Your task to perform on an android device: install app "Pinterest" Image 0: 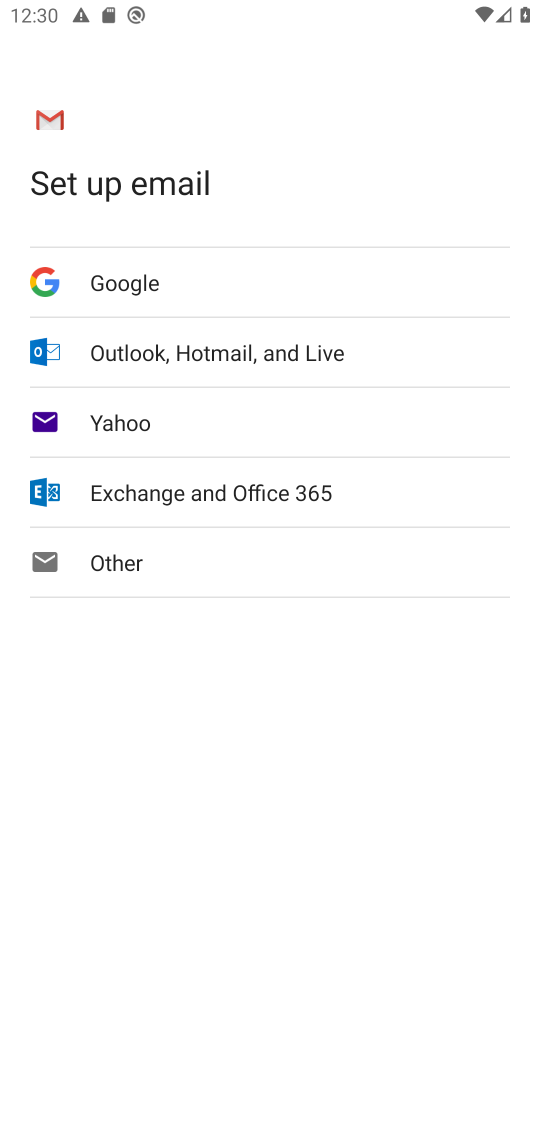
Step 0: press home button
Your task to perform on an android device: install app "Pinterest" Image 1: 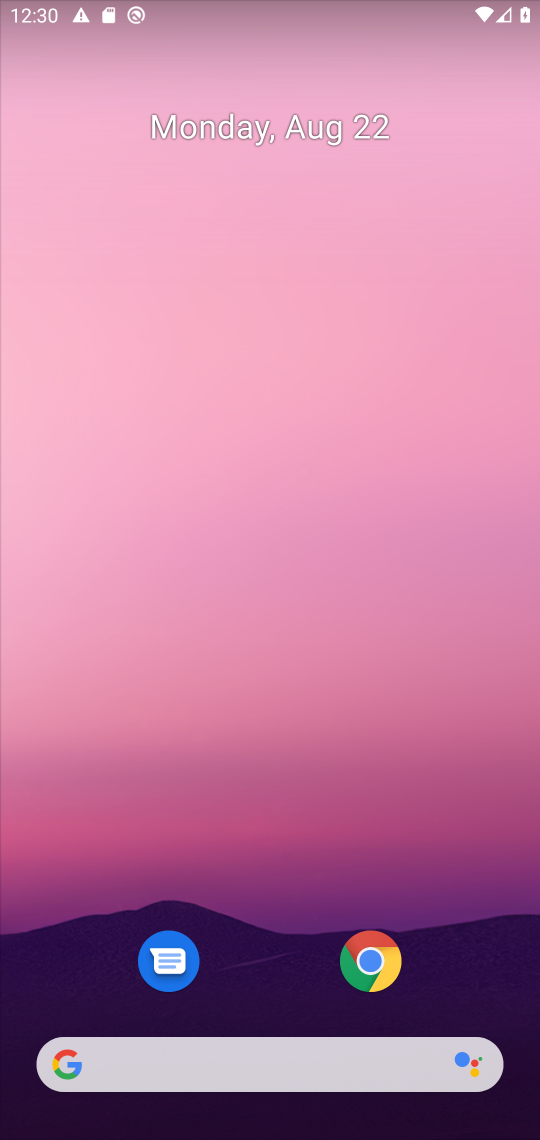
Step 1: drag from (464, 984) to (454, 108)
Your task to perform on an android device: install app "Pinterest" Image 2: 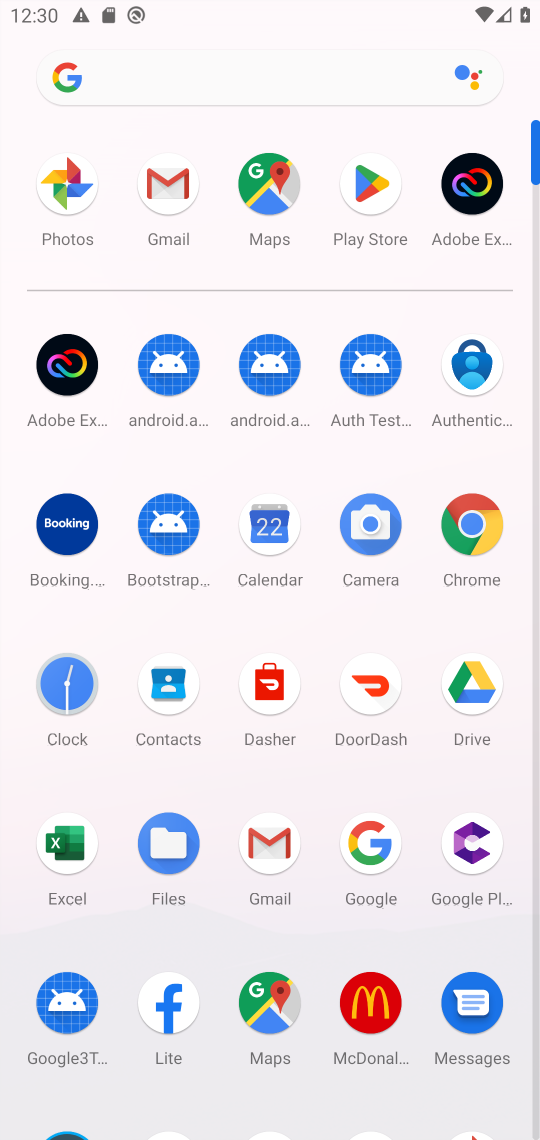
Step 2: click (374, 193)
Your task to perform on an android device: install app "Pinterest" Image 3: 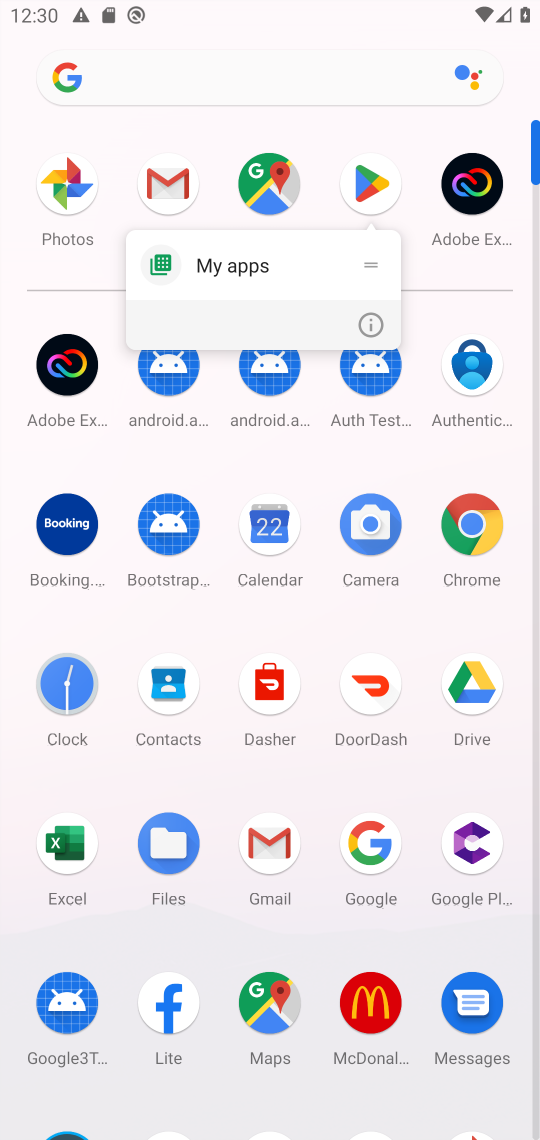
Step 3: click (374, 193)
Your task to perform on an android device: install app "Pinterest" Image 4: 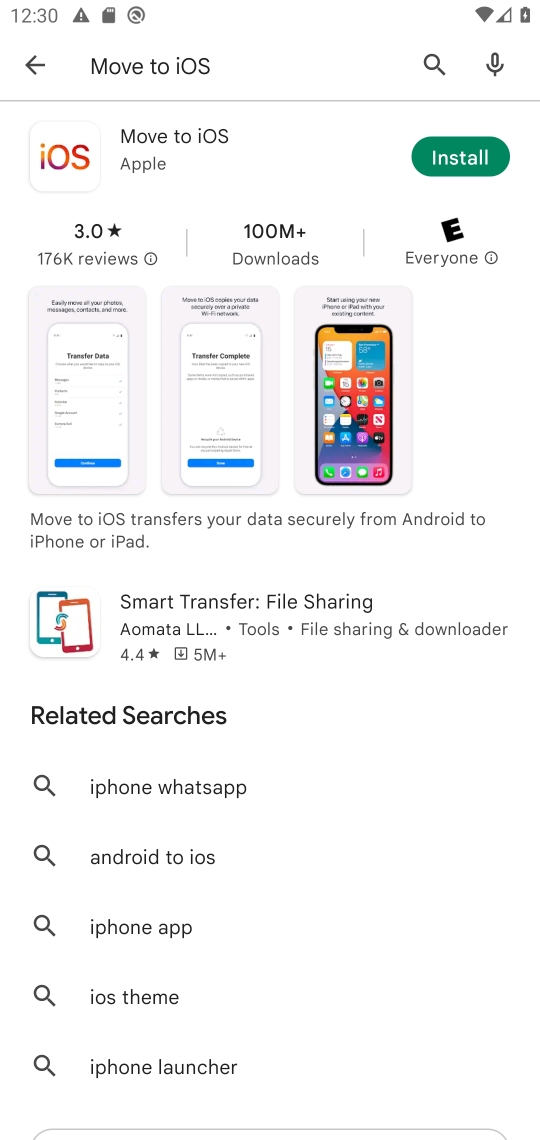
Step 4: press back button
Your task to perform on an android device: install app "Pinterest" Image 5: 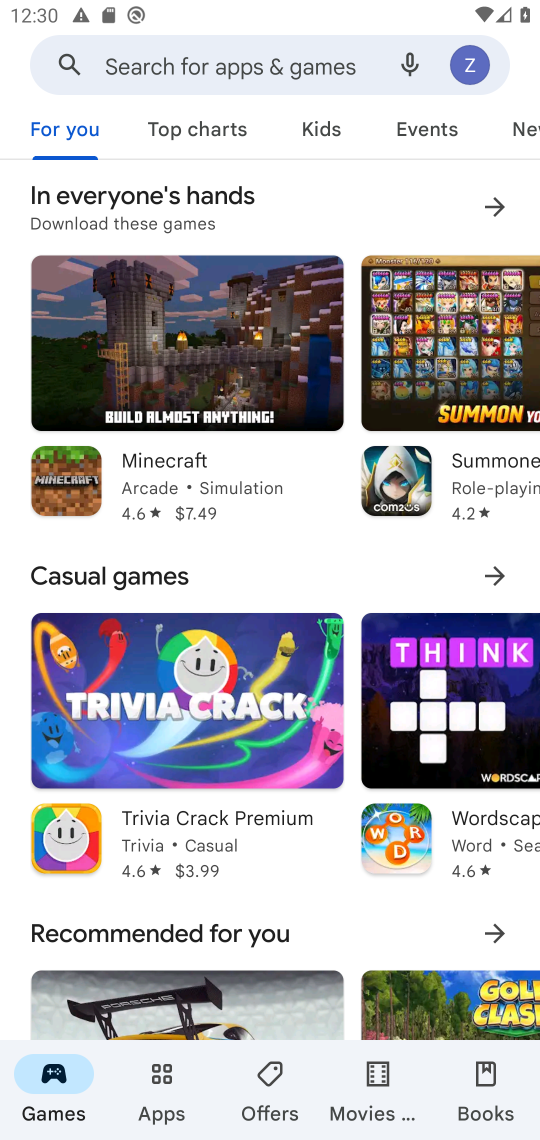
Step 5: click (298, 65)
Your task to perform on an android device: install app "Pinterest" Image 6: 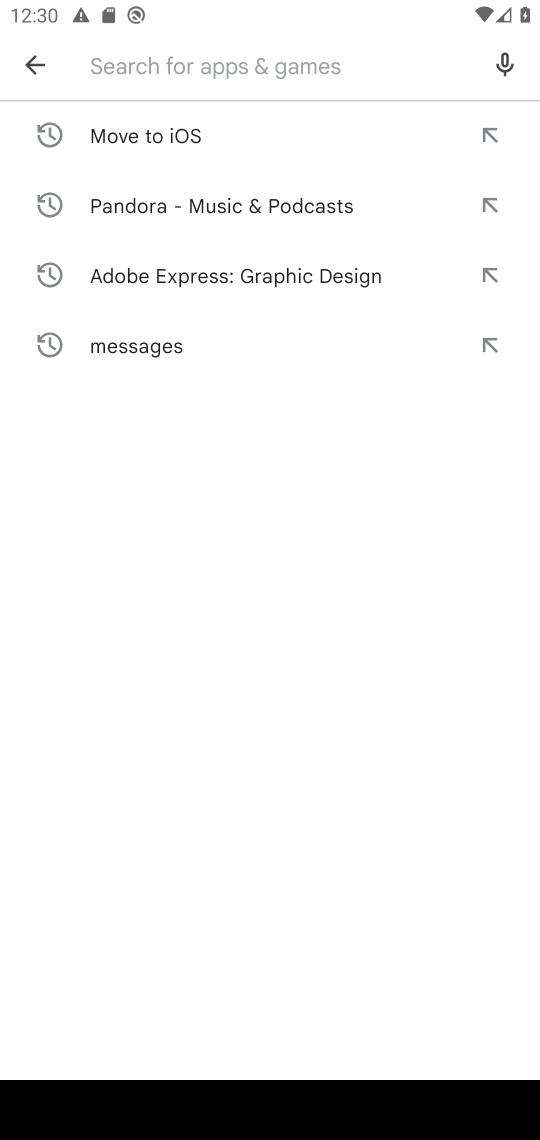
Step 6: type "pinterest"
Your task to perform on an android device: install app "Pinterest" Image 7: 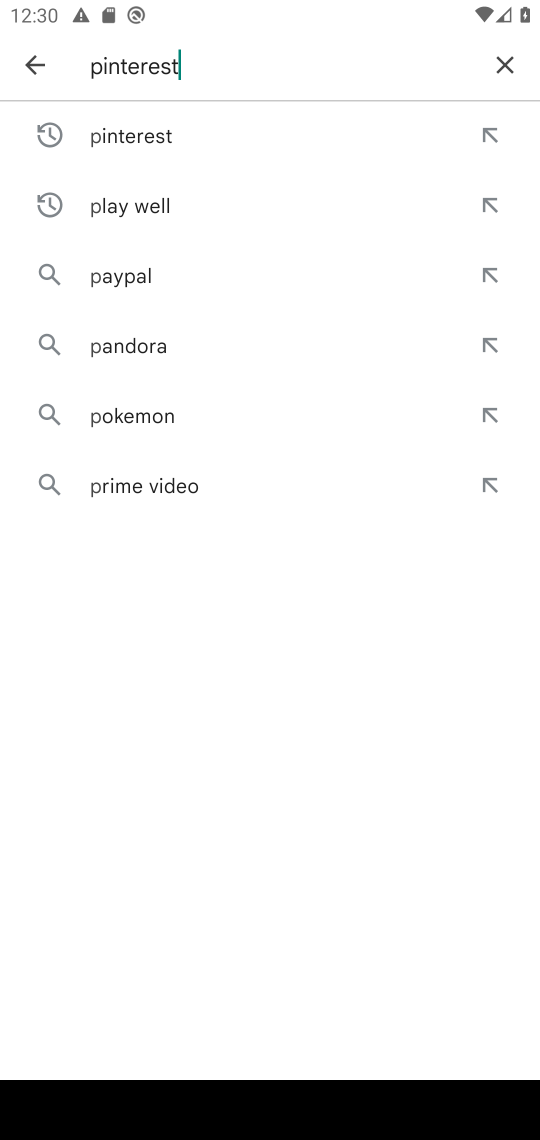
Step 7: press enter
Your task to perform on an android device: install app "Pinterest" Image 8: 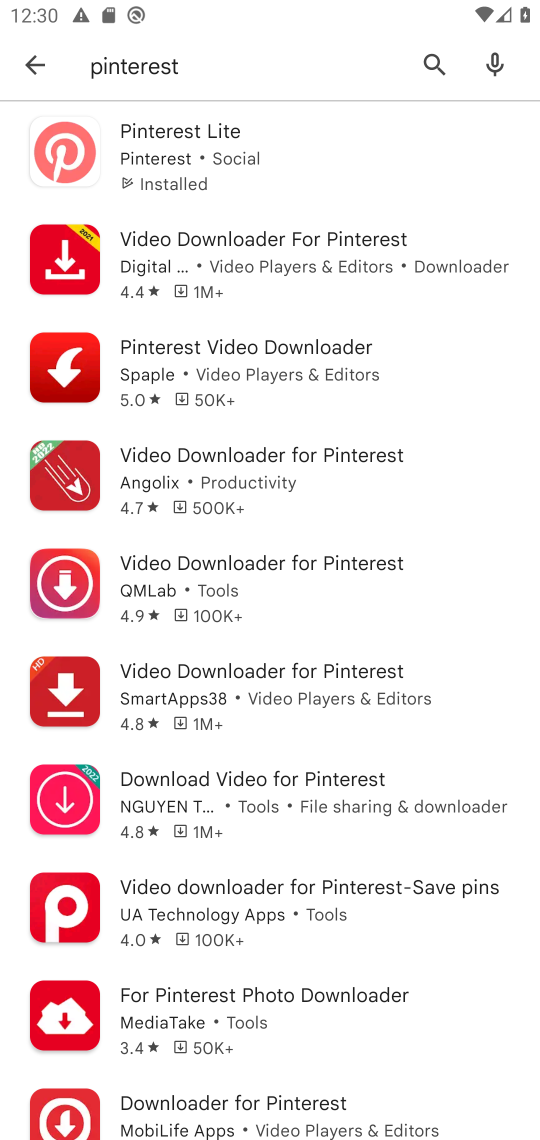
Step 8: task complete